Your task to perform on an android device: change keyboard looks Image 0: 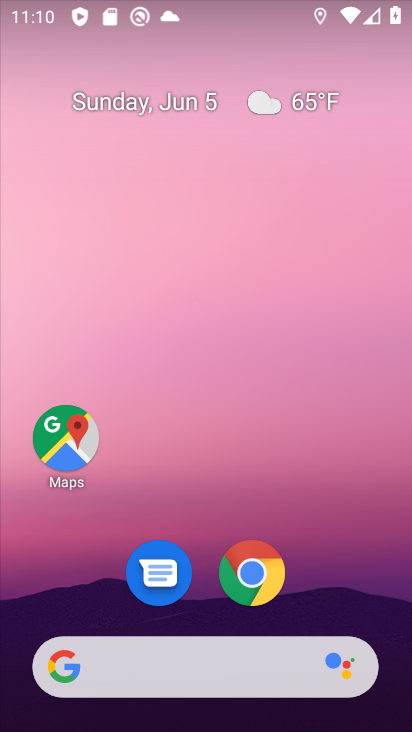
Step 0: drag from (203, 624) to (229, 100)
Your task to perform on an android device: change keyboard looks Image 1: 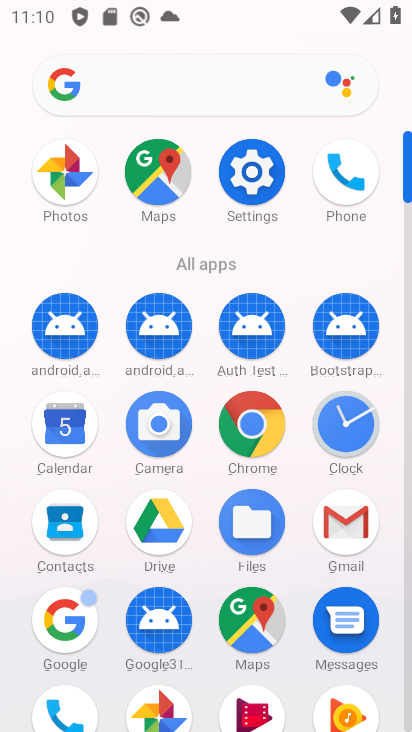
Step 1: click (250, 167)
Your task to perform on an android device: change keyboard looks Image 2: 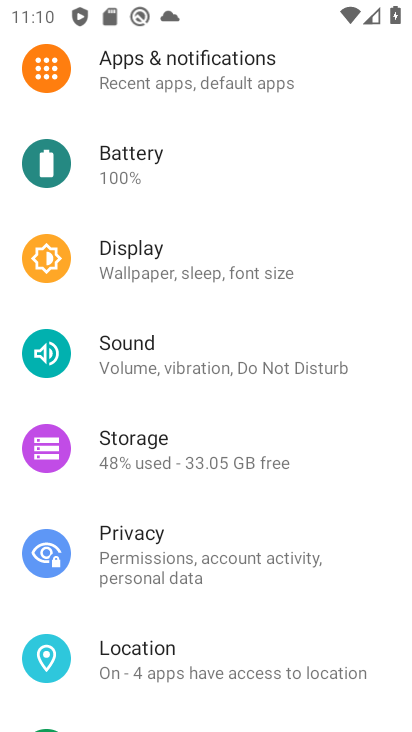
Step 2: drag from (227, 693) to (217, 52)
Your task to perform on an android device: change keyboard looks Image 3: 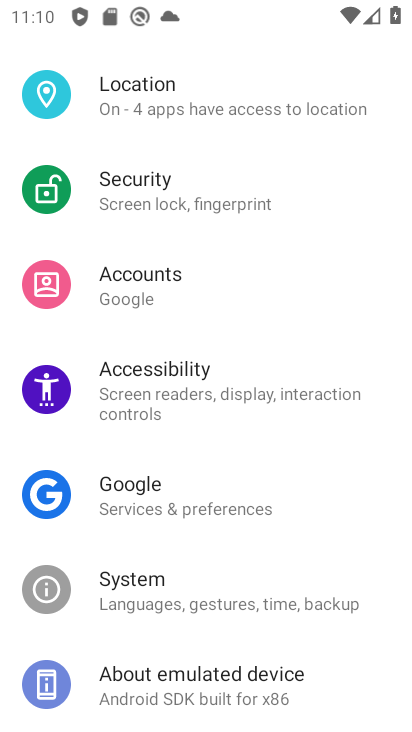
Step 3: click (181, 578)
Your task to perform on an android device: change keyboard looks Image 4: 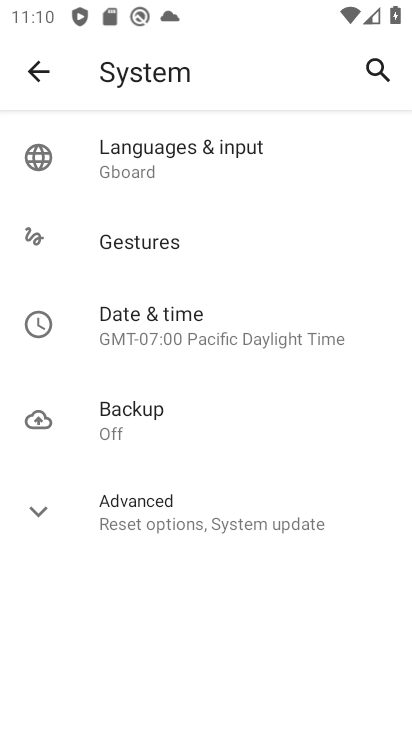
Step 4: click (76, 147)
Your task to perform on an android device: change keyboard looks Image 5: 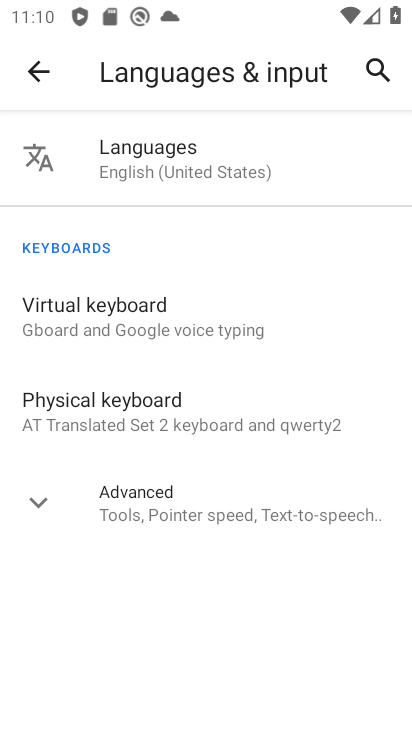
Step 5: click (177, 297)
Your task to perform on an android device: change keyboard looks Image 6: 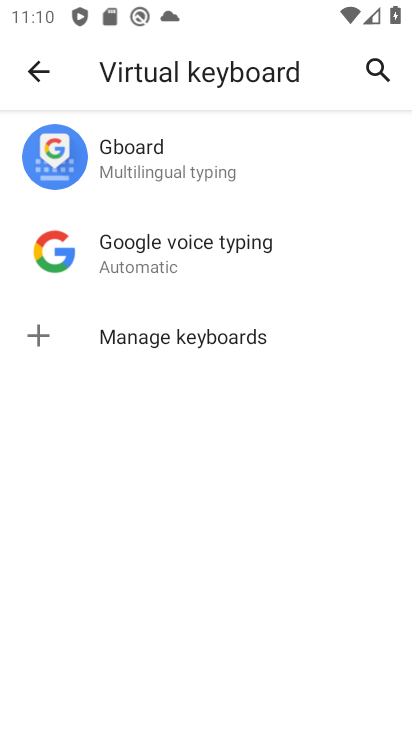
Step 6: click (204, 149)
Your task to perform on an android device: change keyboard looks Image 7: 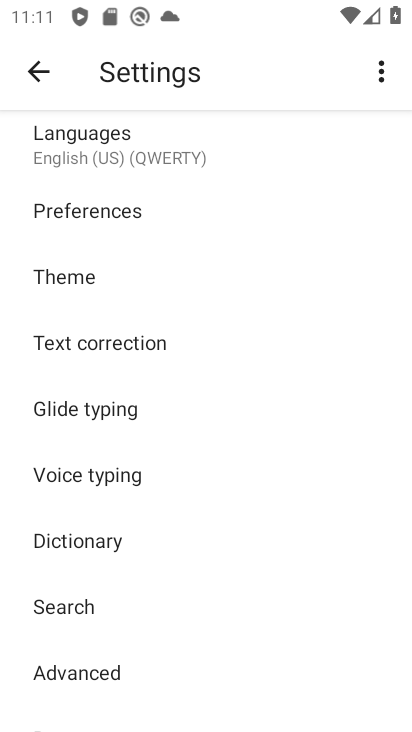
Step 7: click (106, 275)
Your task to perform on an android device: change keyboard looks Image 8: 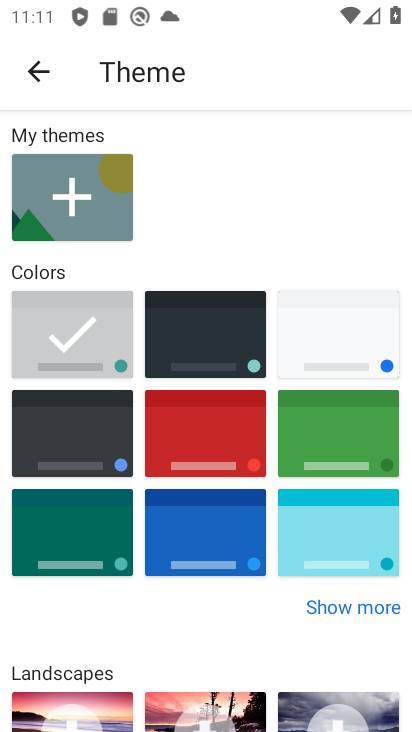
Step 8: click (207, 434)
Your task to perform on an android device: change keyboard looks Image 9: 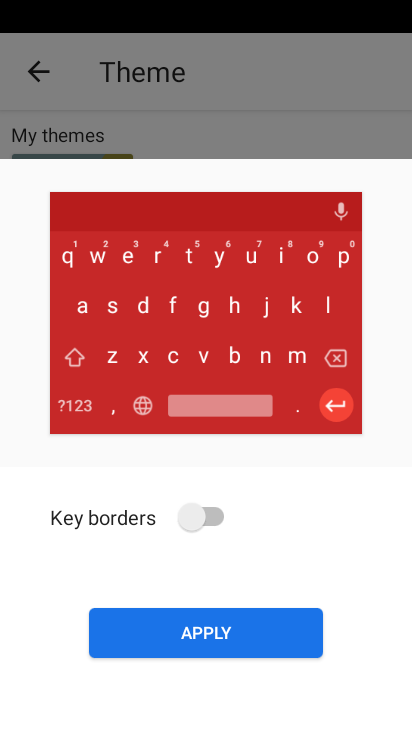
Step 9: click (204, 636)
Your task to perform on an android device: change keyboard looks Image 10: 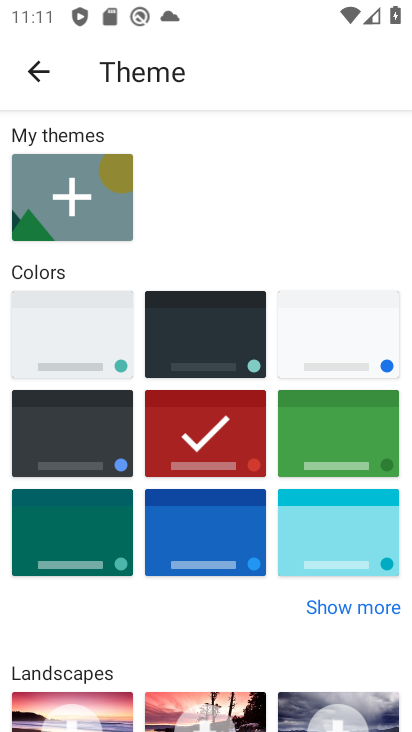
Step 10: task complete